Your task to perform on an android device: What's on my calendar today? Image 0: 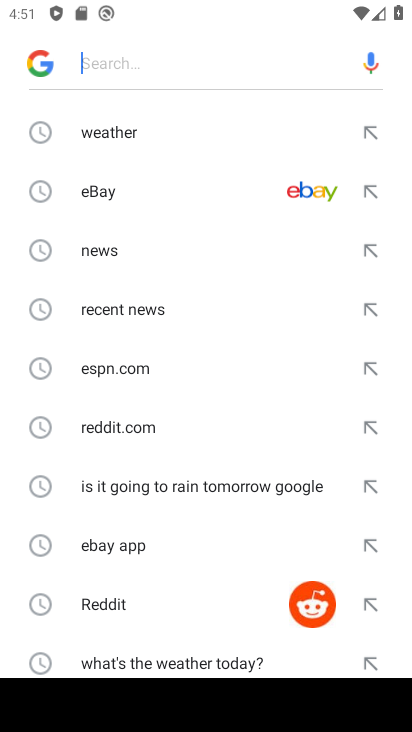
Step 0: press home button
Your task to perform on an android device: What's on my calendar today? Image 1: 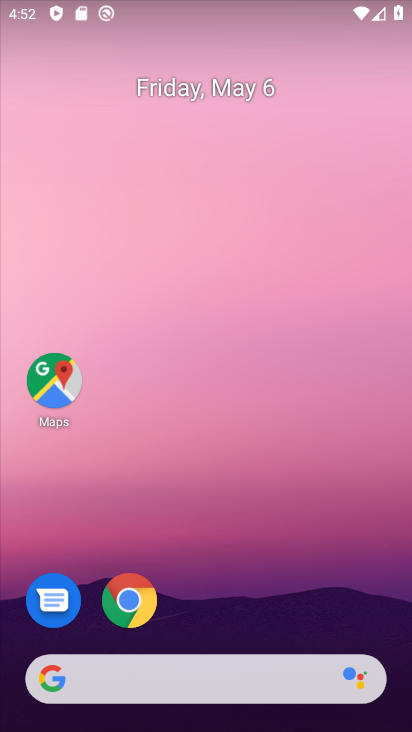
Step 1: drag from (306, 611) to (341, 192)
Your task to perform on an android device: What's on my calendar today? Image 2: 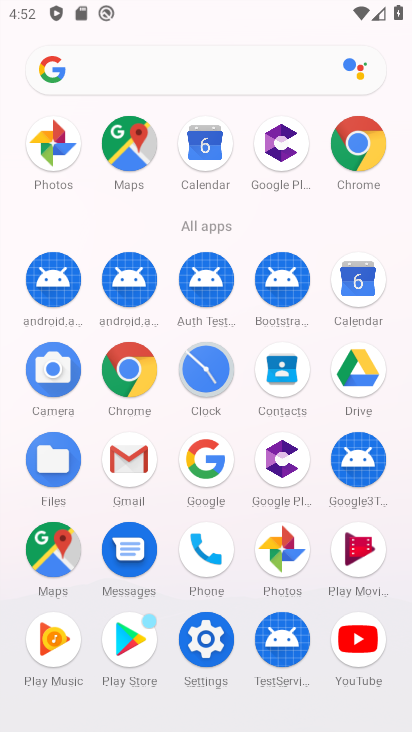
Step 2: click (359, 310)
Your task to perform on an android device: What's on my calendar today? Image 3: 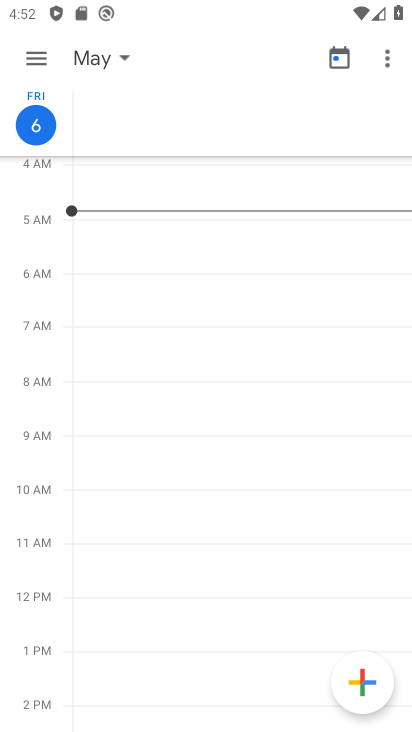
Step 3: task complete